Your task to perform on an android device: Open sound settings Image 0: 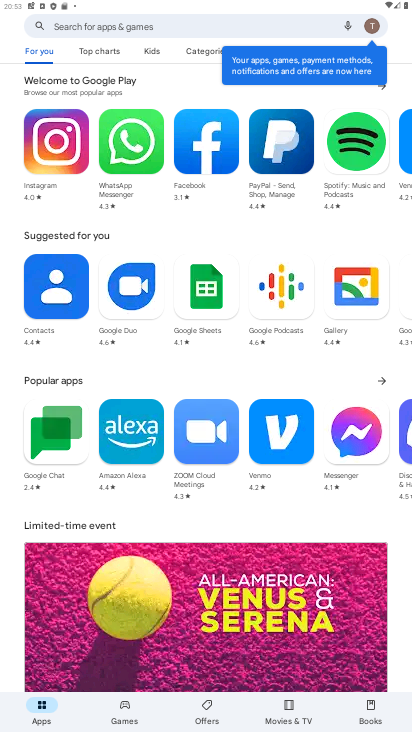
Step 0: press home button
Your task to perform on an android device: Open sound settings Image 1: 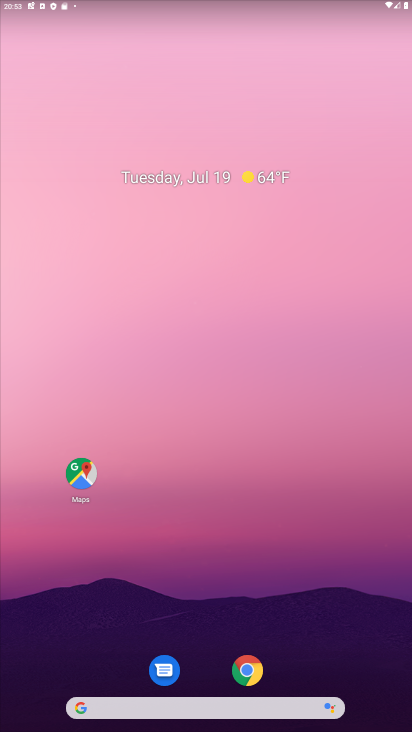
Step 1: drag from (211, 393) to (241, 38)
Your task to perform on an android device: Open sound settings Image 2: 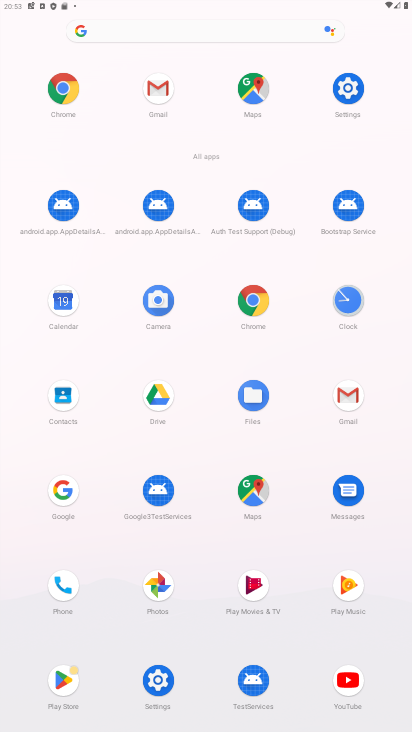
Step 2: click (343, 94)
Your task to perform on an android device: Open sound settings Image 3: 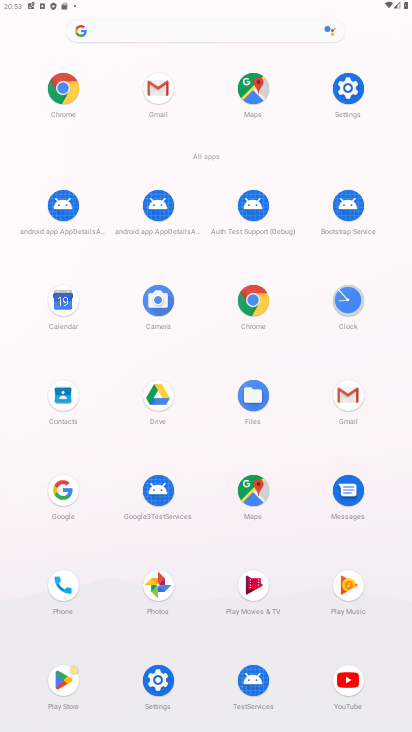
Step 3: click (343, 94)
Your task to perform on an android device: Open sound settings Image 4: 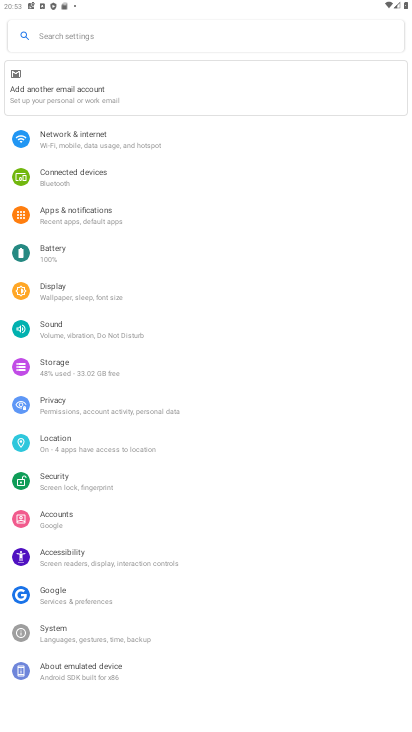
Step 4: click (75, 327)
Your task to perform on an android device: Open sound settings Image 5: 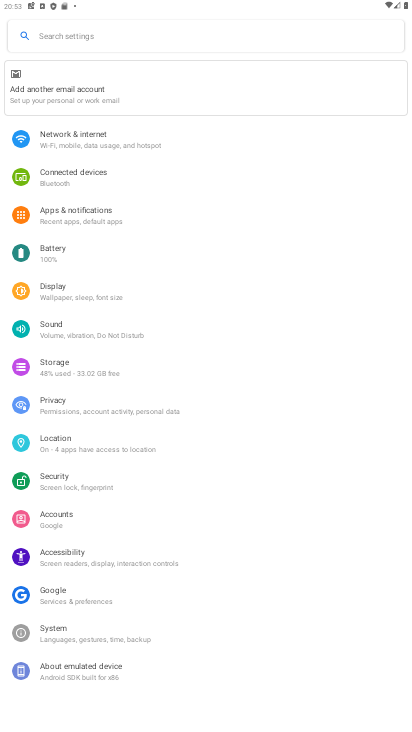
Step 5: click (75, 327)
Your task to perform on an android device: Open sound settings Image 6: 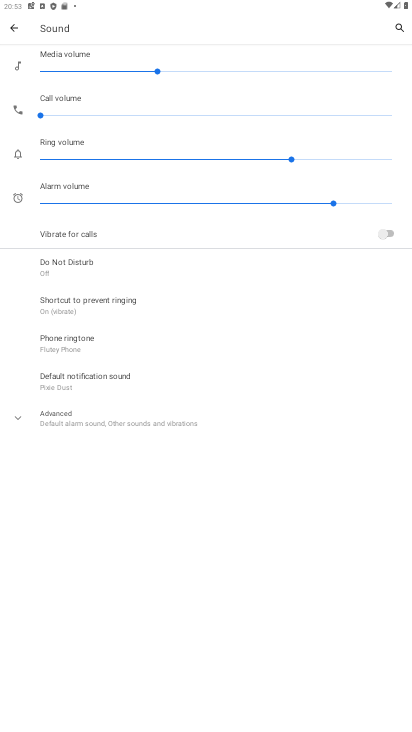
Step 6: task complete